Your task to perform on an android device: Go to network settings Image 0: 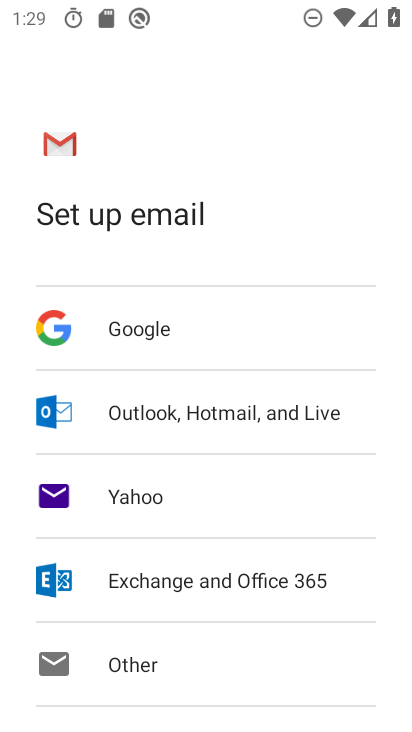
Step 0: press home button
Your task to perform on an android device: Go to network settings Image 1: 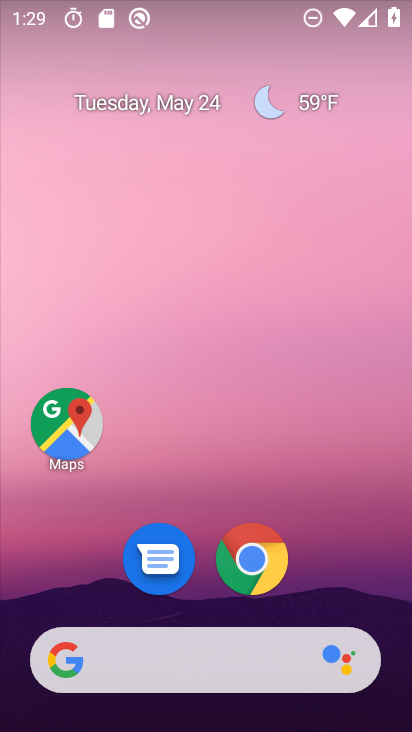
Step 1: drag from (395, 676) to (367, 216)
Your task to perform on an android device: Go to network settings Image 2: 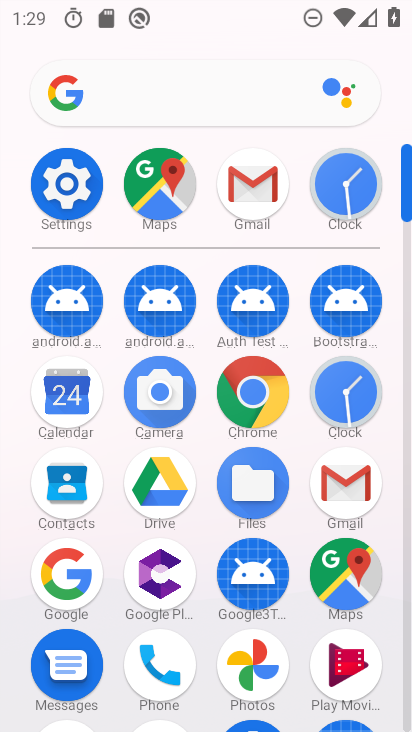
Step 2: click (63, 193)
Your task to perform on an android device: Go to network settings Image 3: 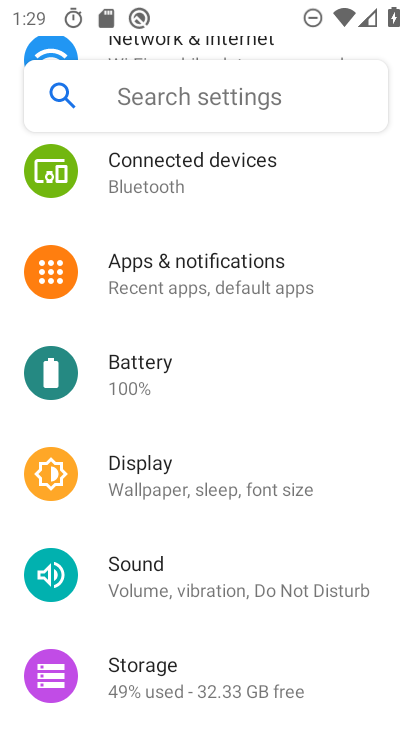
Step 3: drag from (331, 246) to (340, 660)
Your task to perform on an android device: Go to network settings Image 4: 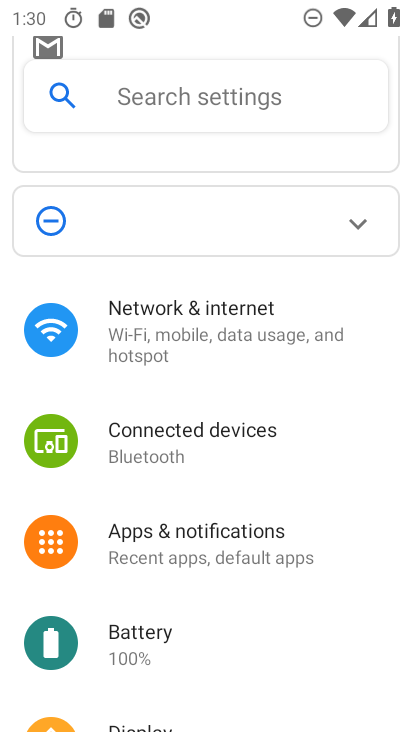
Step 4: click (135, 332)
Your task to perform on an android device: Go to network settings Image 5: 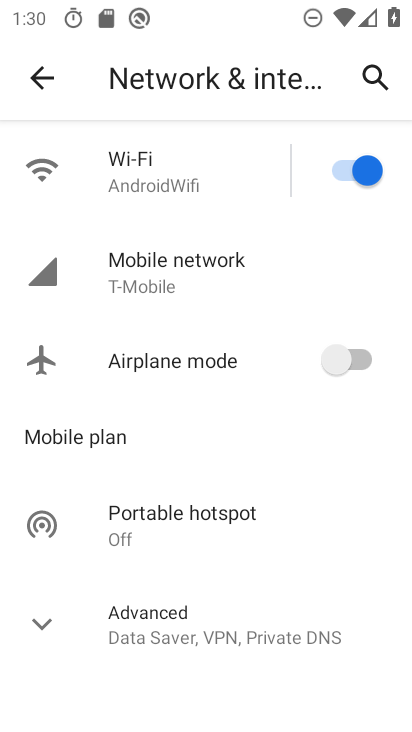
Step 5: click (120, 265)
Your task to perform on an android device: Go to network settings Image 6: 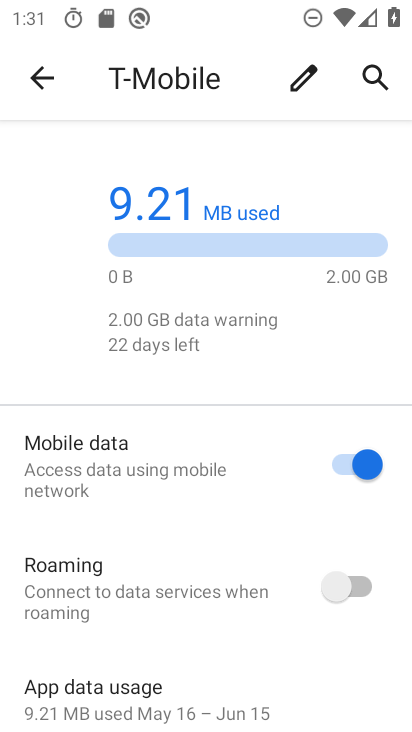
Step 6: task complete